Your task to perform on an android device: Open the calendar app, open the side menu, and click the "Day" option Image 0: 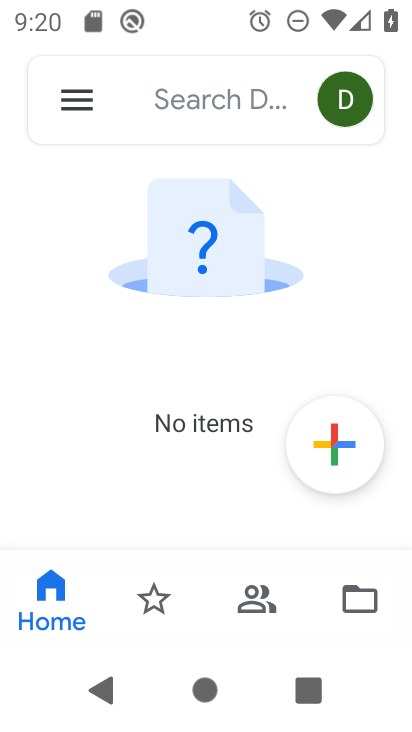
Step 0: press home button
Your task to perform on an android device: Open the calendar app, open the side menu, and click the "Day" option Image 1: 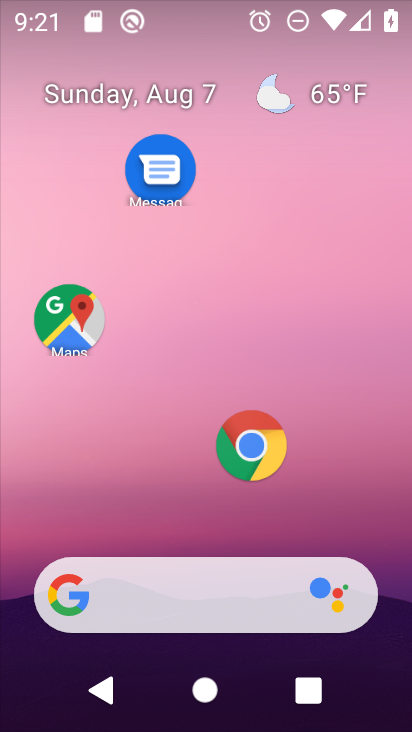
Step 1: drag from (179, 522) to (240, 42)
Your task to perform on an android device: Open the calendar app, open the side menu, and click the "Day" option Image 2: 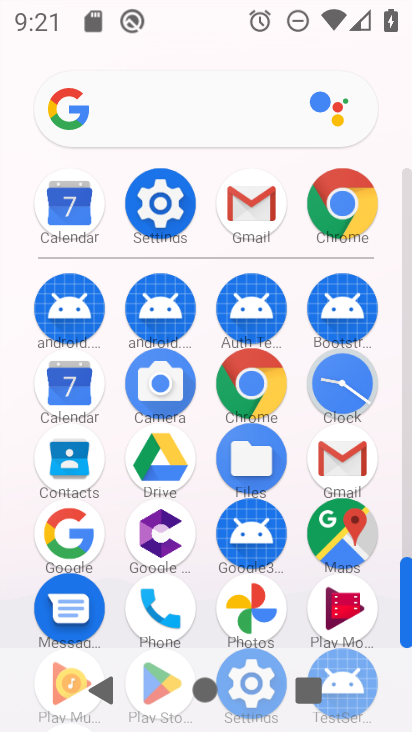
Step 2: click (66, 196)
Your task to perform on an android device: Open the calendar app, open the side menu, and click the "Day" option Image 3: 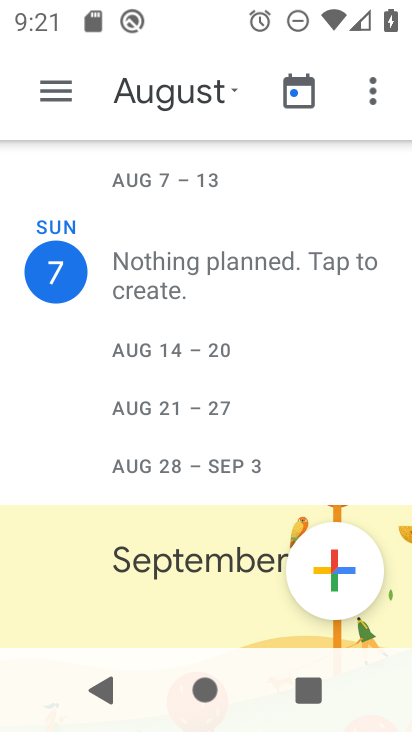
Step 3: click (59, 92)
Your task to perform on an android device: Open the calendar app, open the side menu, and click the "Day" option Image 4: 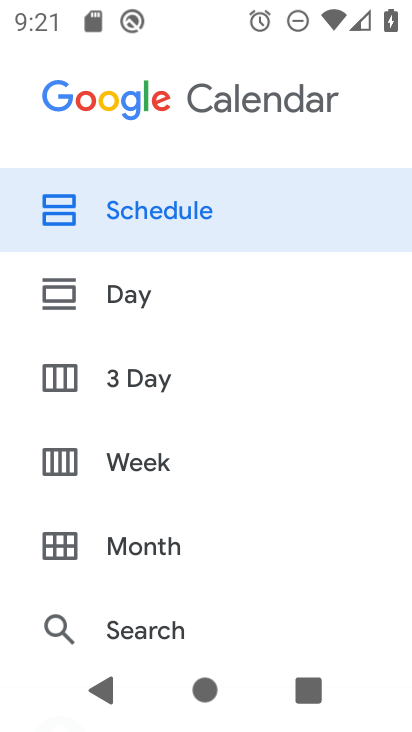
Step 4: click (89, 284)
Your task to perform on an android device: Open the calendar app, open the side menu, and click the "Day" option Image 5: 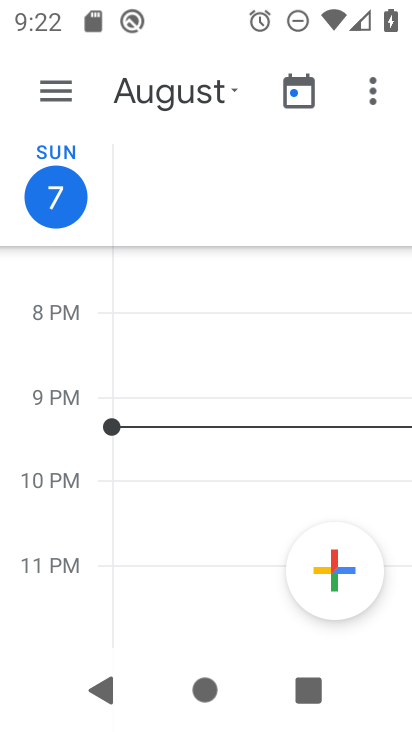
Step 5: click (53, 84)
Your task to perform on an android device: Open the calendar app, open the side menu, and click the "Day" option Image 6: 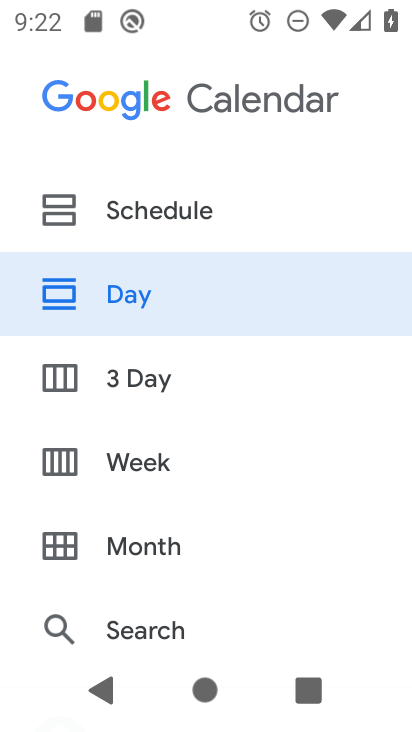
Step 6: click (105, 291)
Your task to perform on an android device: Open the calendar app, open the side menu, and click the "Day" option Image 7: 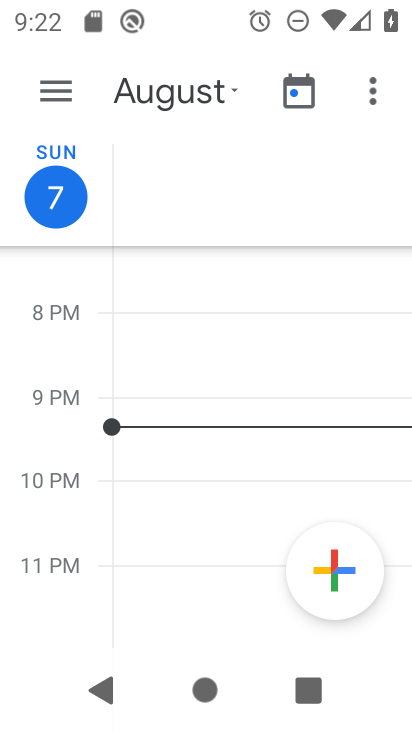
Step 7: task complete